Your task to perform on an android device: Open location settings Image 0: 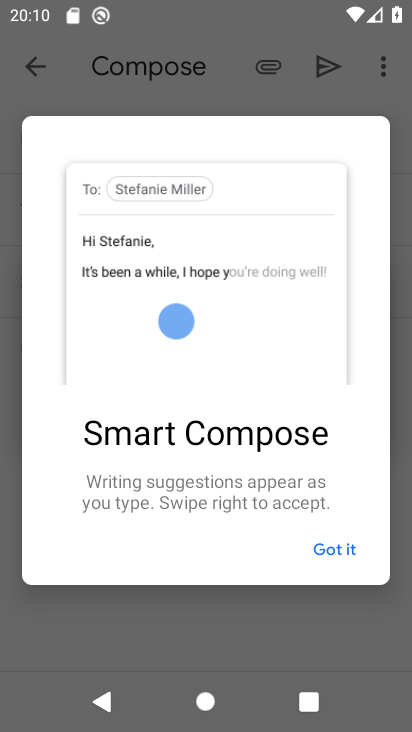
Step 0: press home button
Your task to perform on an android device: Open location settings Image 1: 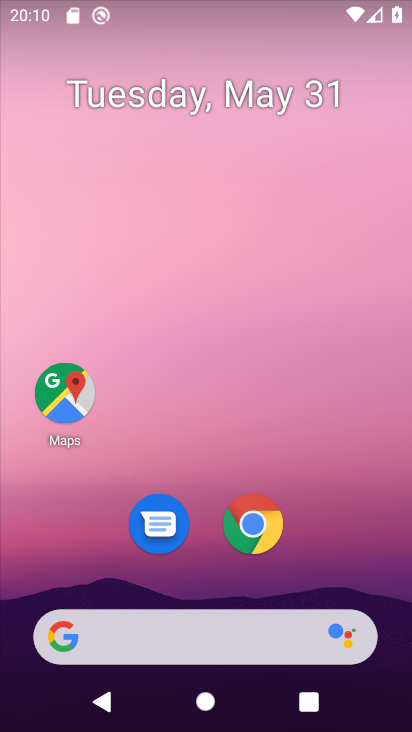
Step 1: drag from (303, 537) to (263, 0)
Your task to perform on an android device: Open location settings Image 2: 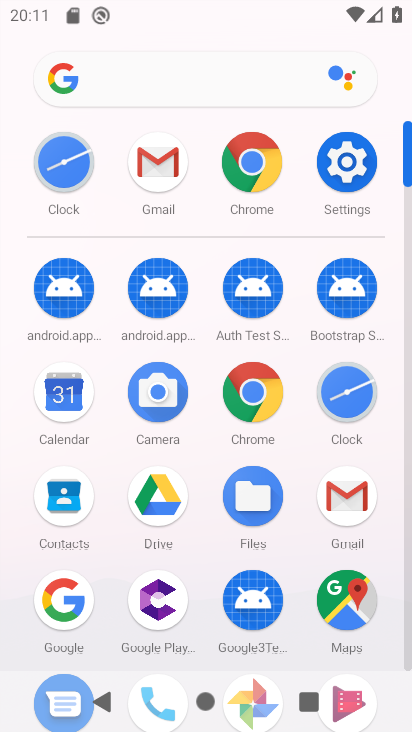
Step 2: click (343, 154)
Your task to perform on an android device: Open location settings Image 3: 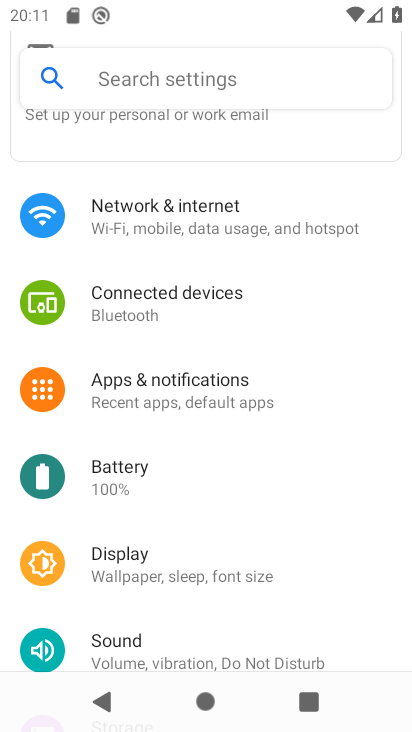
Step 3: drag from (226, 534) to (316, 130)
Your task to perform on an android device: Open location settings Image 4: 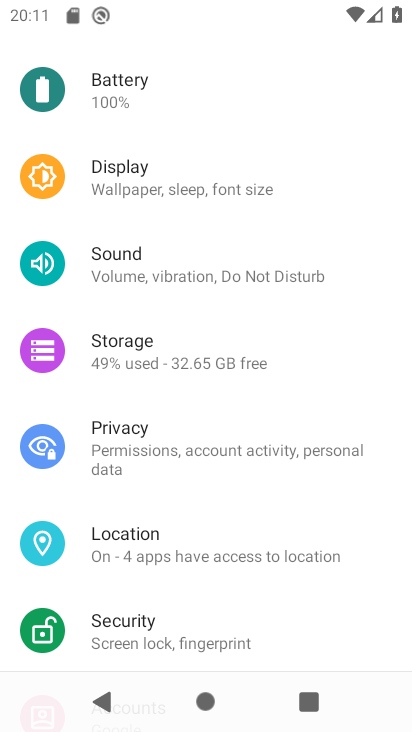
Step 4: click (195, 549)
Your task to perform on an android device: Open location settings Image 5: 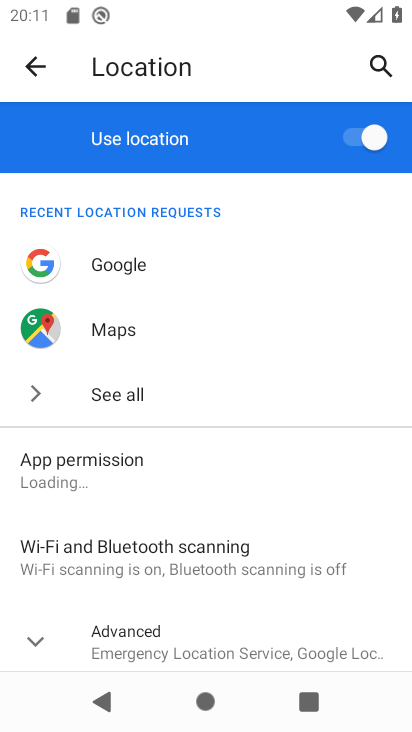
Step 5: task complete